Your task to perform on an android device: toggle translation in the chrome app Image 0: 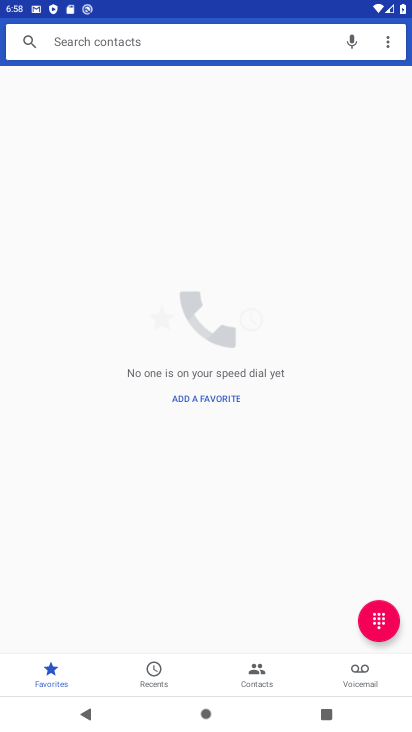
Step 0: drag from (217, 497) to (185, 166)
Your task to perform on an android device: toggle translation in the chrome app Image 1: 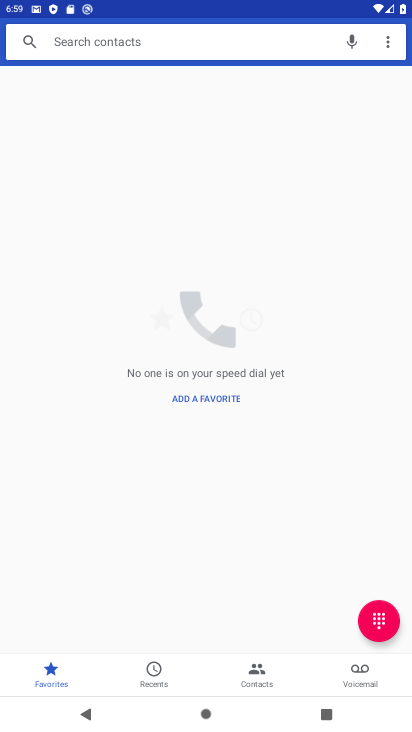
Step 1: press home button
Your task to perform on an android device: toggle translation in the chrome app Image 2: 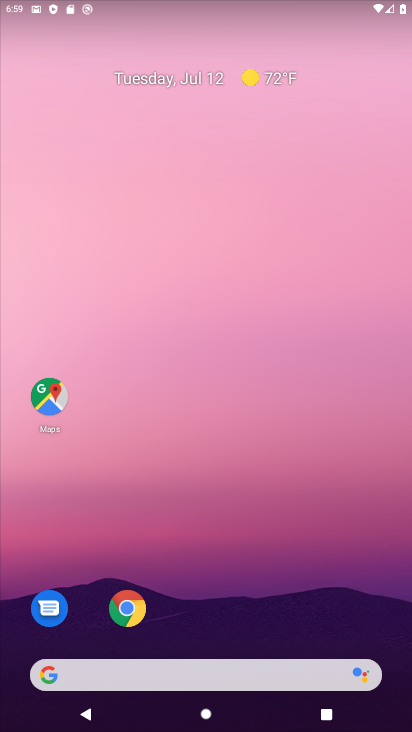
Step 2: click (127, 609)
Your task to perform on an android device: toggle translation in the chrome app Image 3: 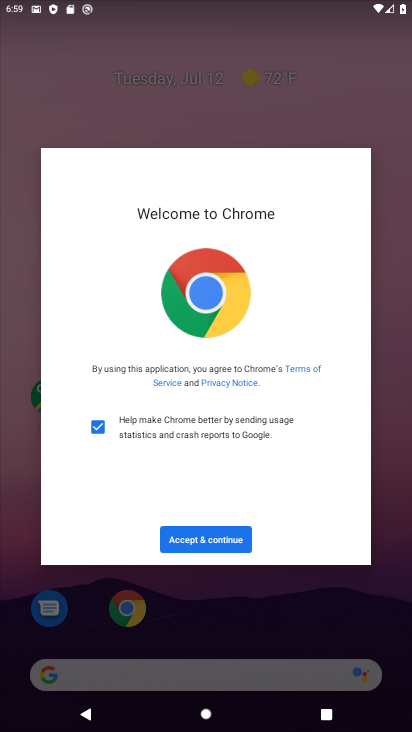
Step 3: click (206, 540)
Your task to perform on an android device: toggle translation in the chrome app Image 4: 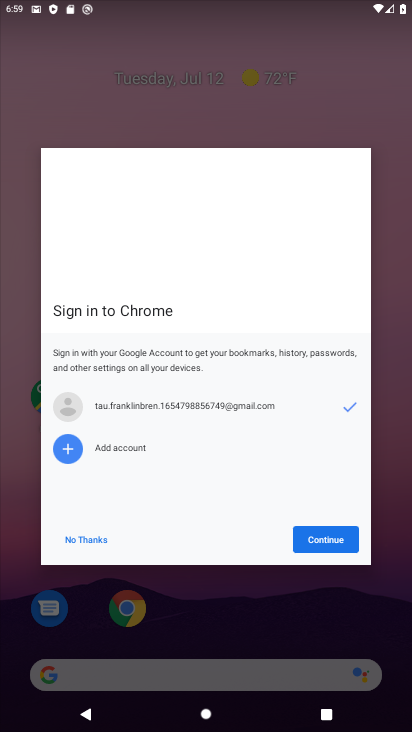
Step 4: click (337, 538)
Your task to perform on an android device: toggle translation in the chrome app Image 5: 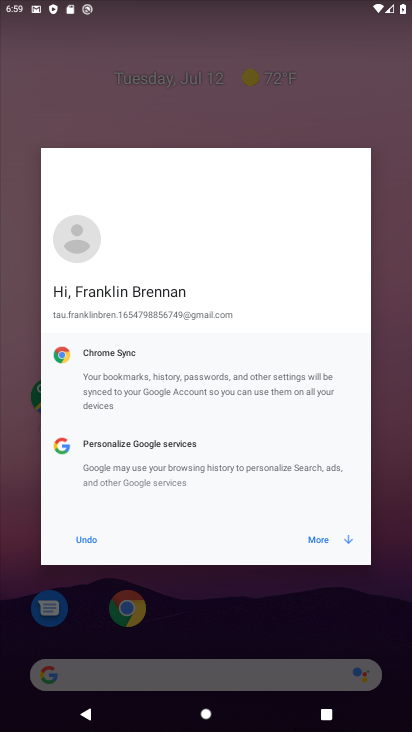
Step 5: click (332, 540)
Your task to perform on an android device: toggle translation in the chrome app Image 6: 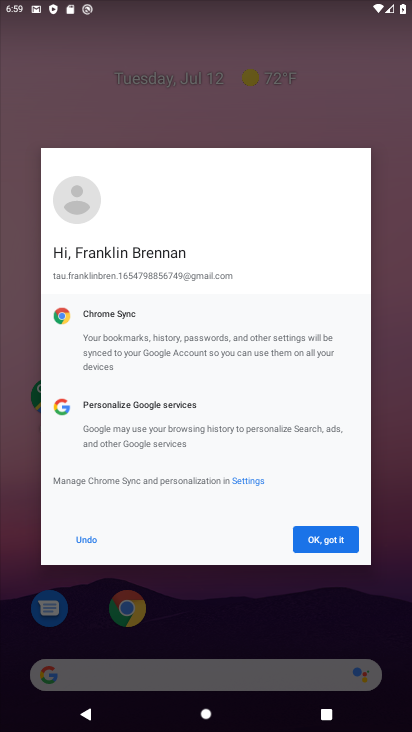
Step 6: click (330, 539)
Your task to perform on an android device: toggle translation in the chrome app Image 7: 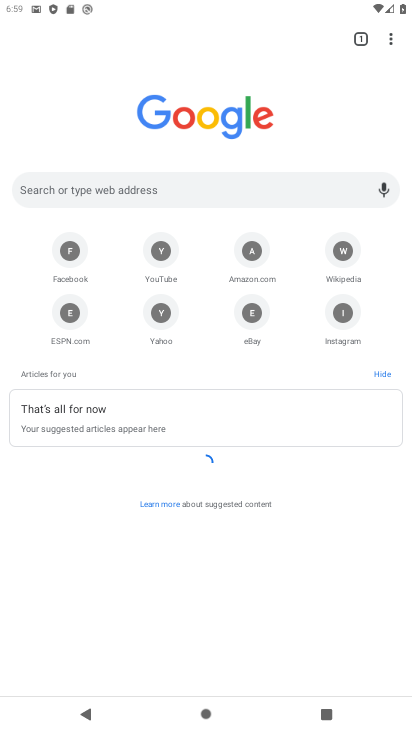
Step 7: click (394, 35)
Your task to perform on an android device: toggle translation in the chrome app Image 8: 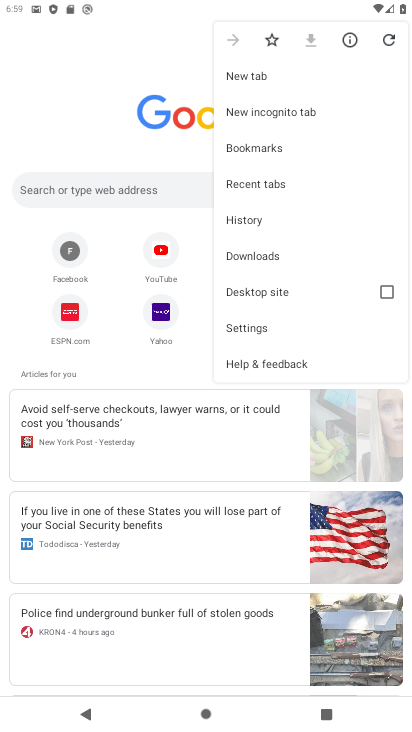
Step 8: click (255, 329)
Your task to perform on an android device: toggle translation in the chrome app Image 9: 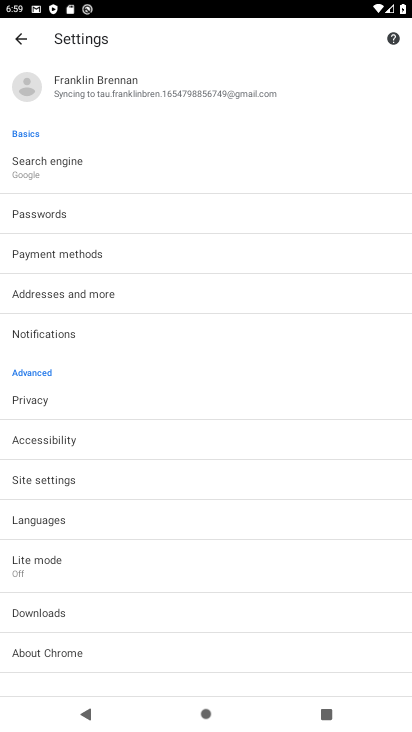
Step 9: click (50, 517)
Your task to perform on an android device: toggle translation in the chrome app Image 10: 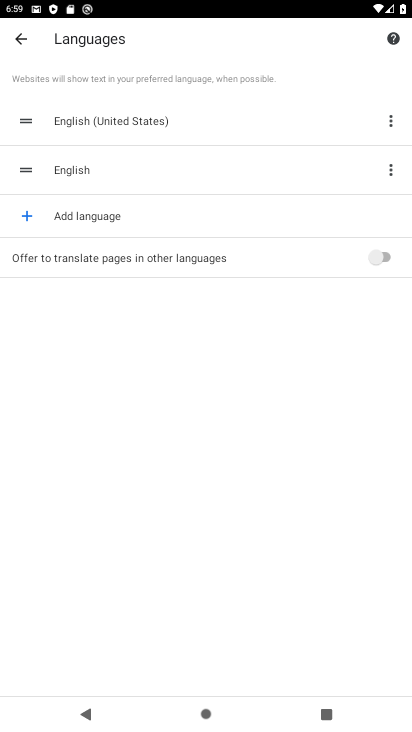
Step 10: click (375, 258)
Your task to perform on an android device: toggle translation in the chrome app Image 11: 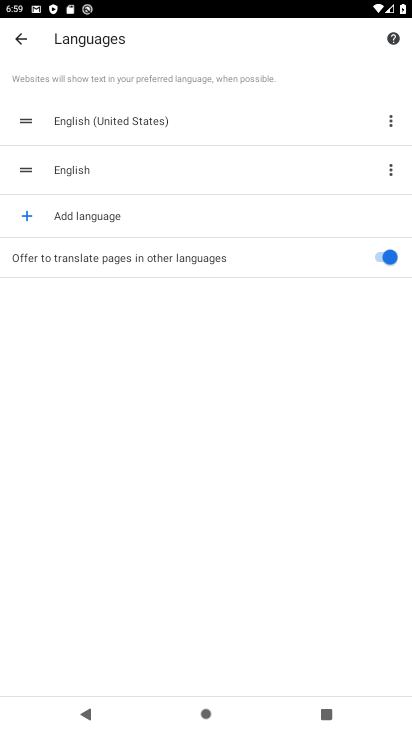
Step 11: task complete